Your task to perform on an android device: Open calendar and show me the third week of next month Image 0: 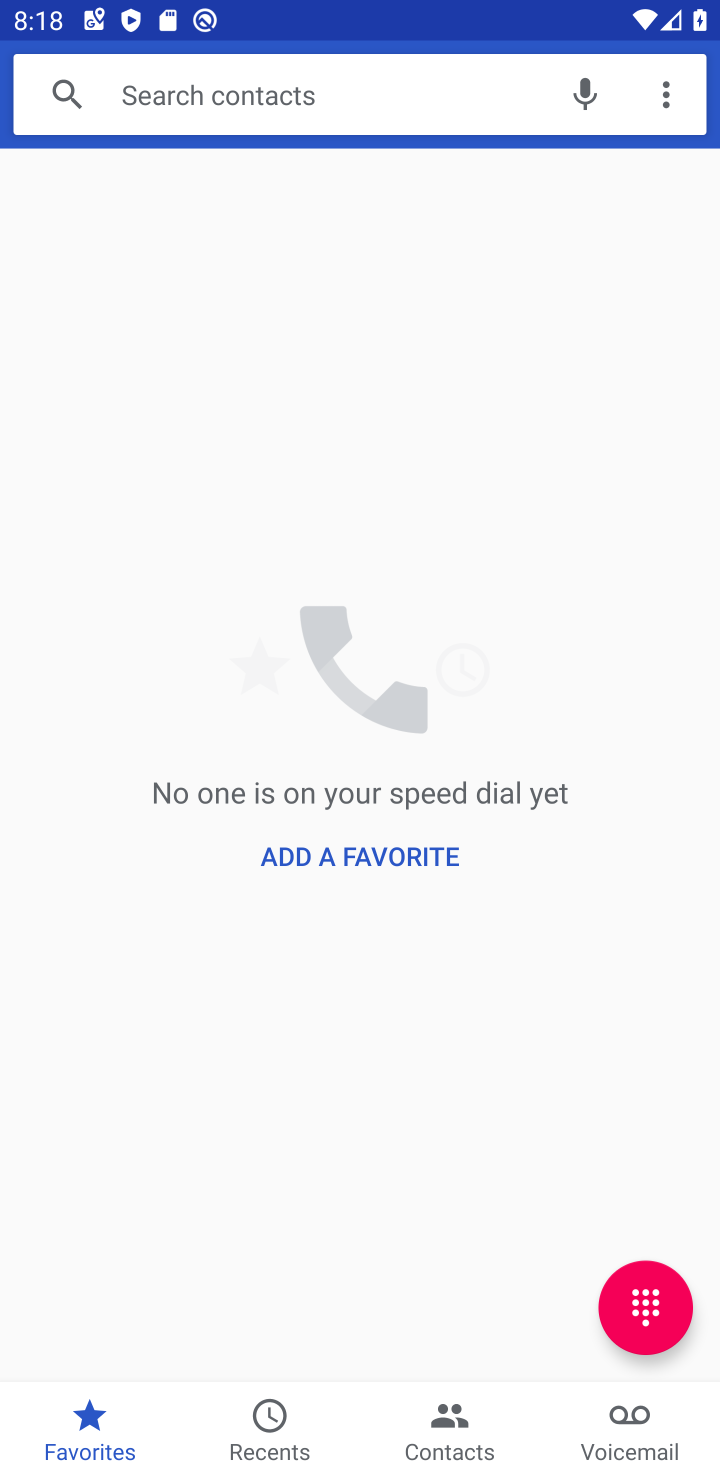
Step 0: press home button
Your task to perform on an android device: Open calendar and show me the third week of next month Image 1: 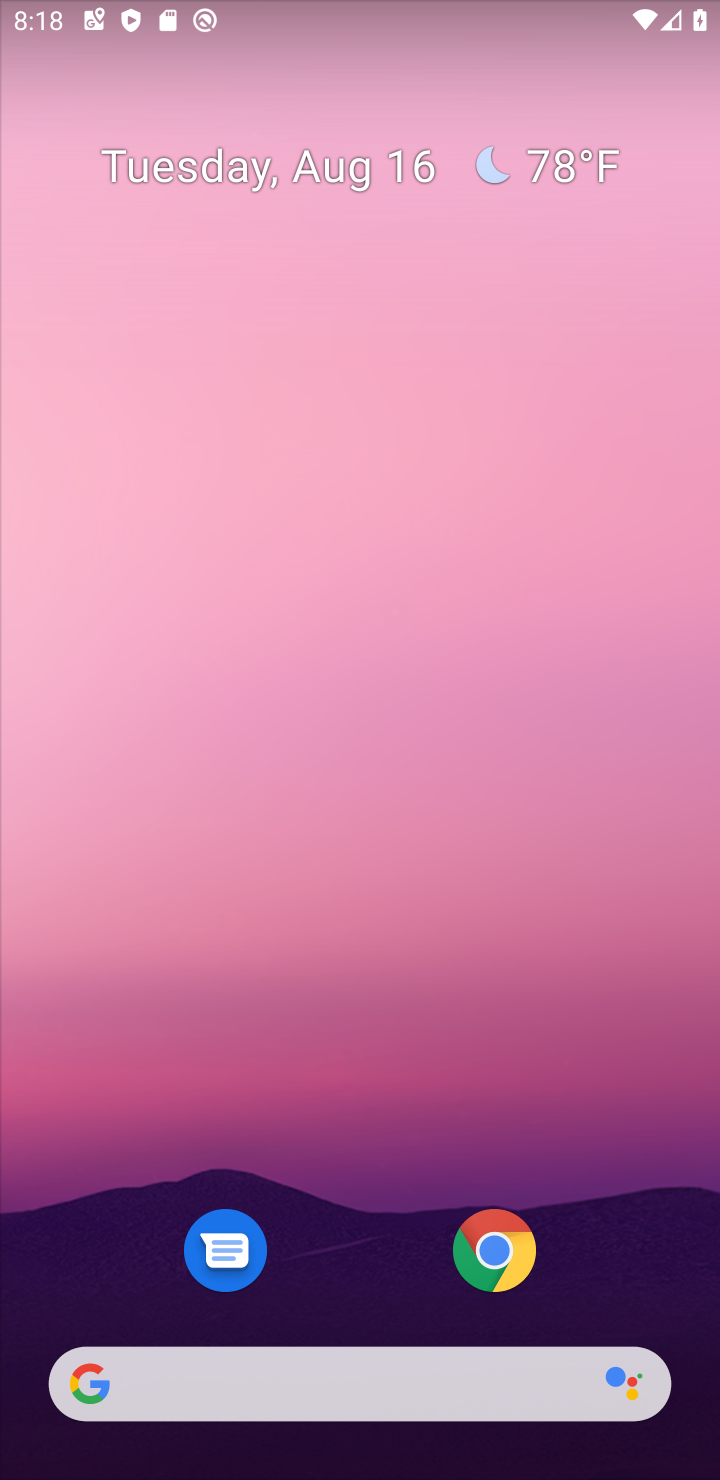
Step 1: click (275, 167)
Your task to perform on an android device: Open calendar and show me the third week of next month Image 2: 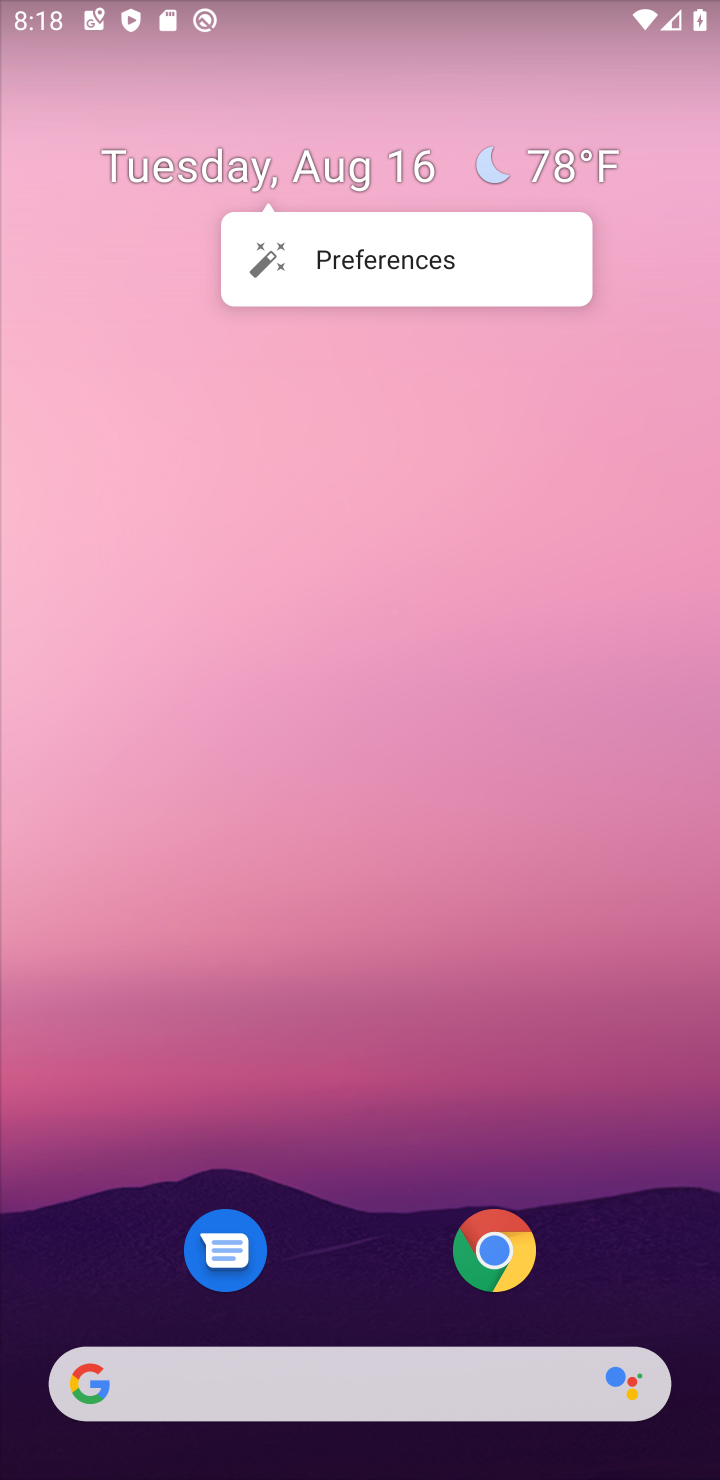
Step 2: click (211, 175)
Your task to perform on an android device: Open calendar and show me the third week of next month Image 3: 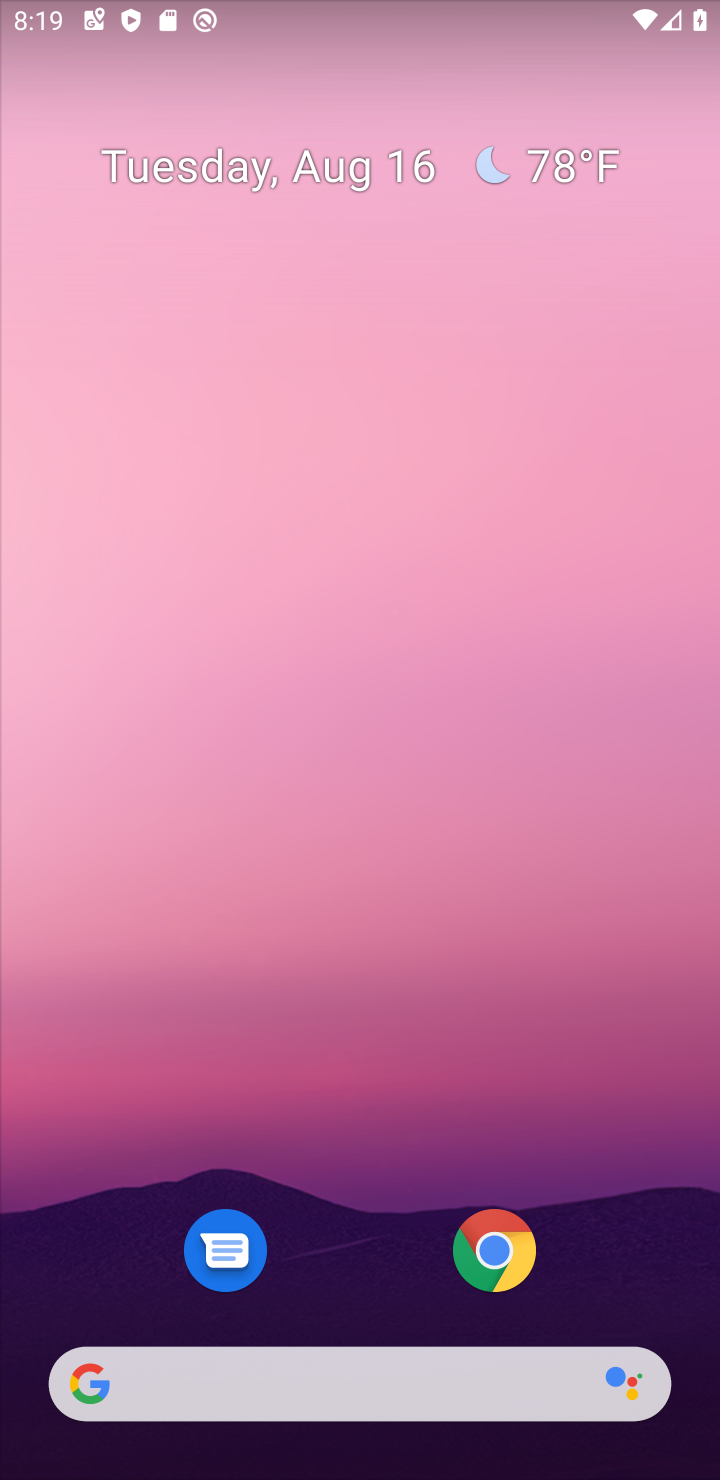
Step 3: click (196, 156)
Your task to perform on an android device: Open calendar and show me the third week of next month Image 4: 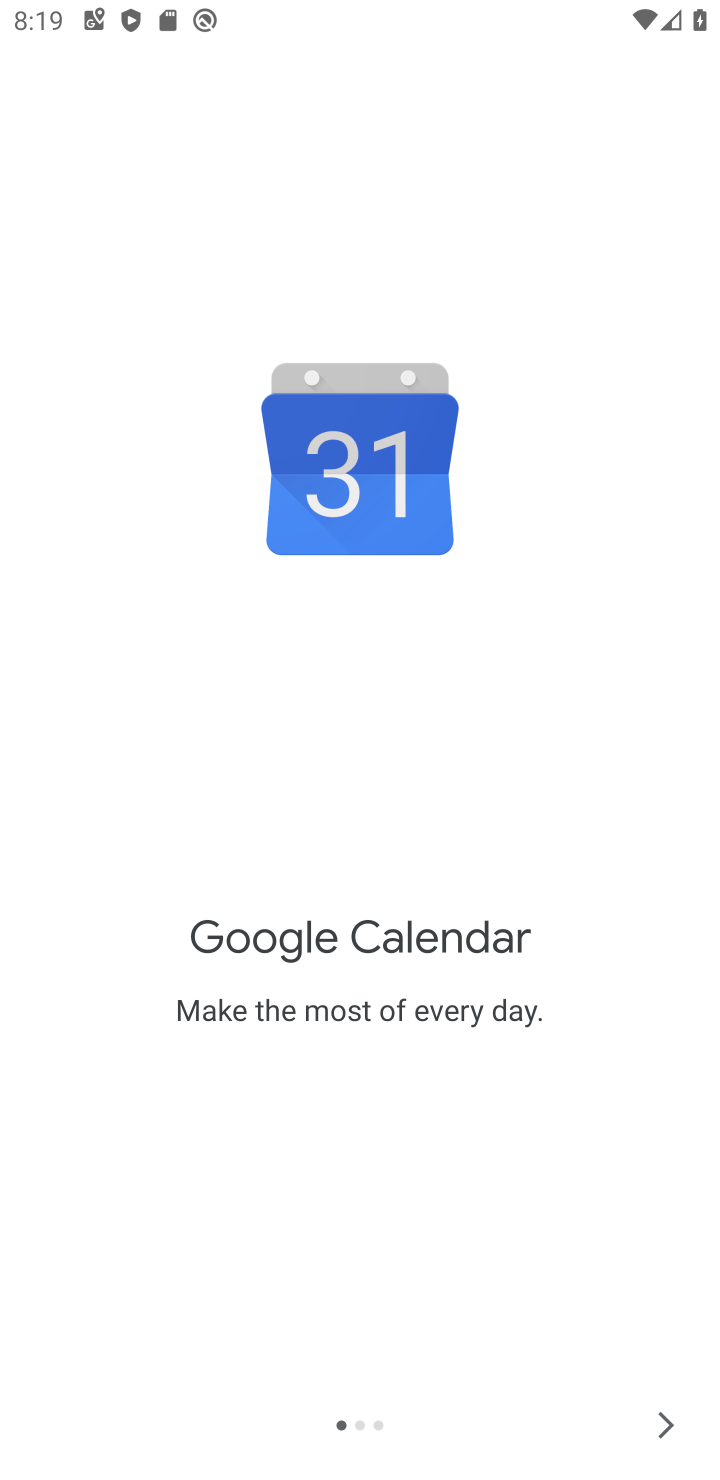
Step 4: click (659, 1415)
Your task to perform on an android device: Open calendar and show me the third week of next month Image 5: 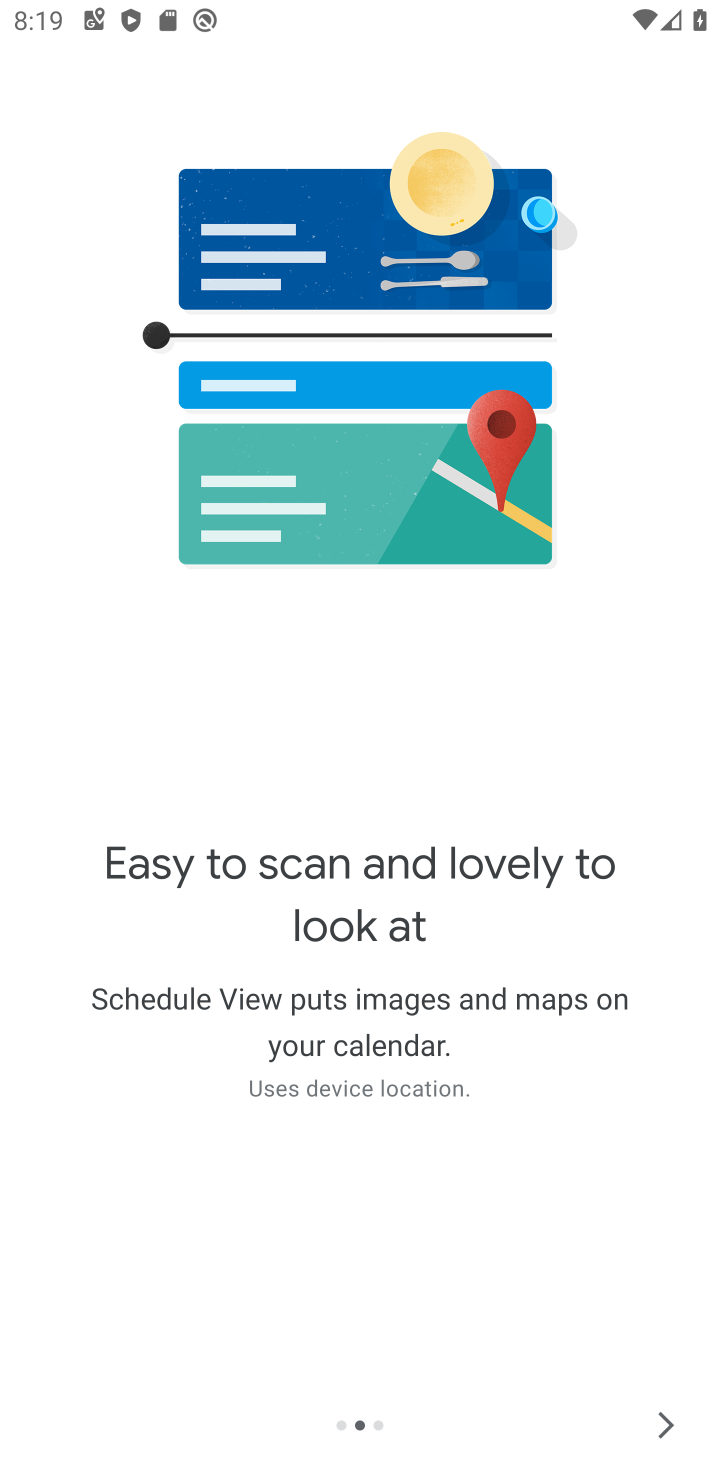
Step 5: click (662, 1421)
Your task to perform on an android device: Open calendar and show me the third week of next month Image 6: 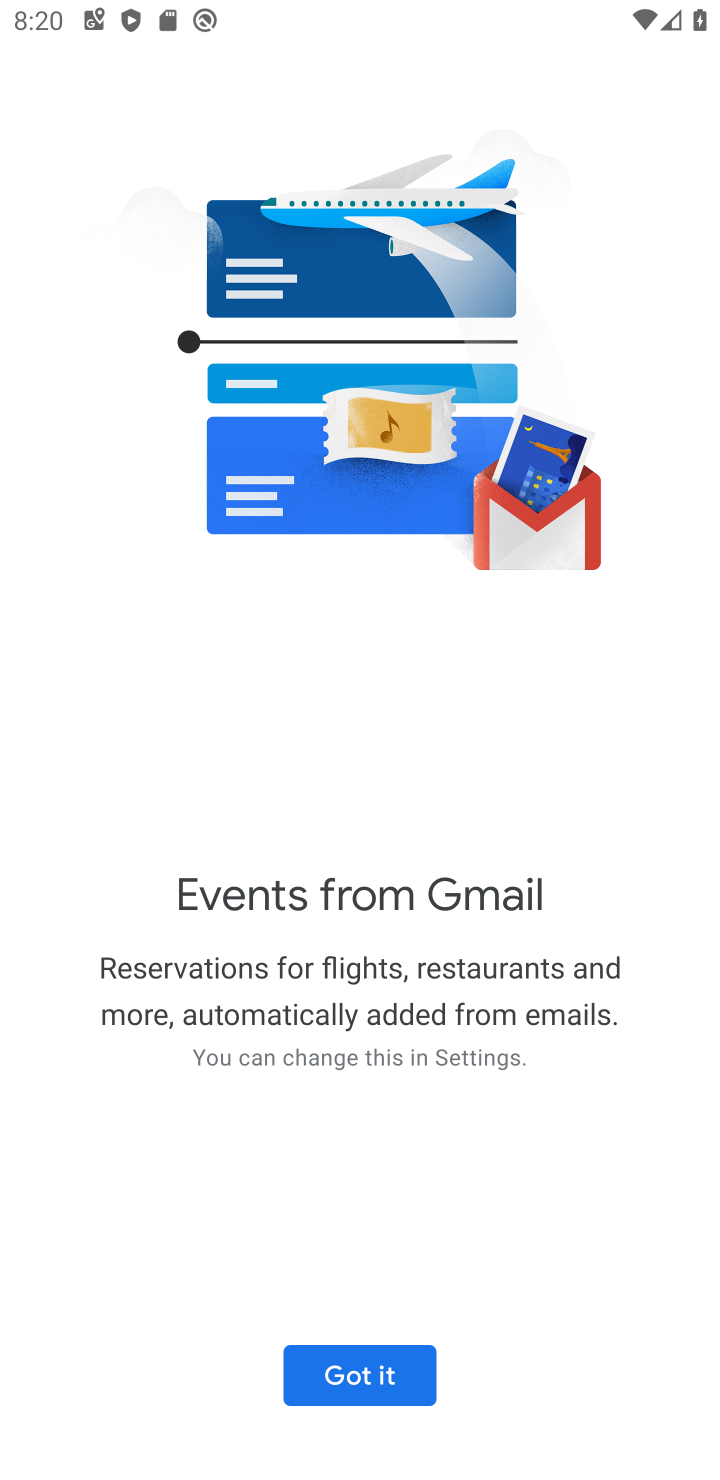
Step 6: click (399, 1355)
Your task to perform on an android device: Open calendar and show me the third week of next month Image 7: 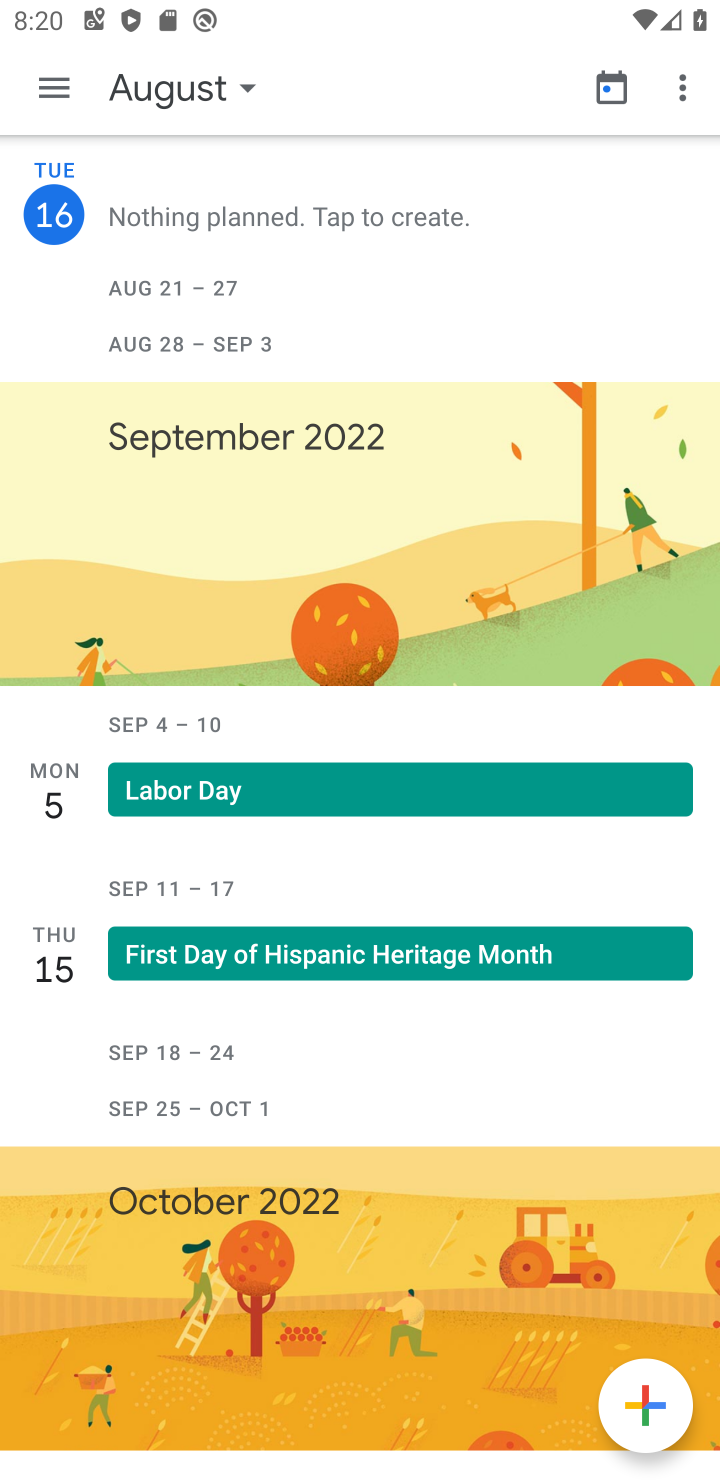
Step 7: click (225, 97)
Your task to perform on an android device: Open calendar and show me the third week of next month Image 8: 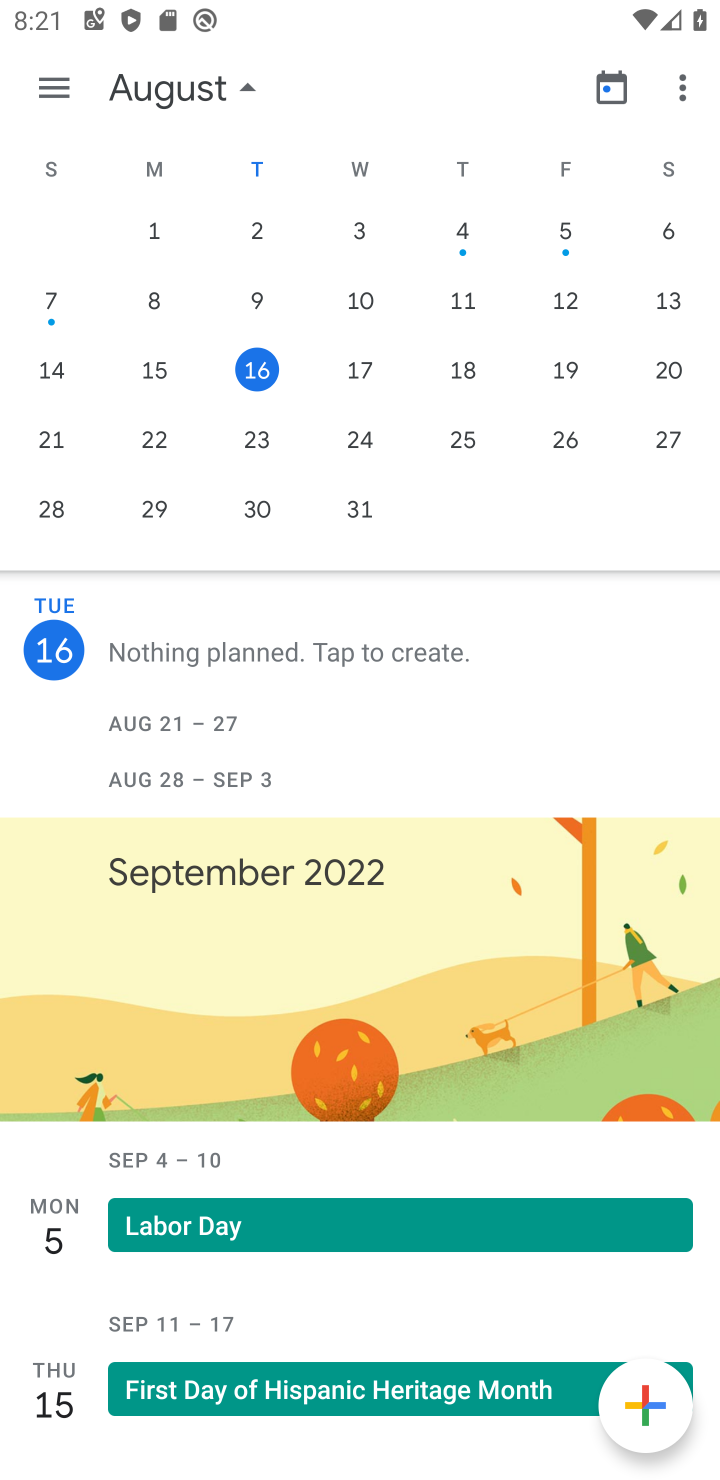
Step 8: drag from (658, 517) to (51, 400)
Your task to perform on an android device: Open calendar and show me the third week of next month Image 9: 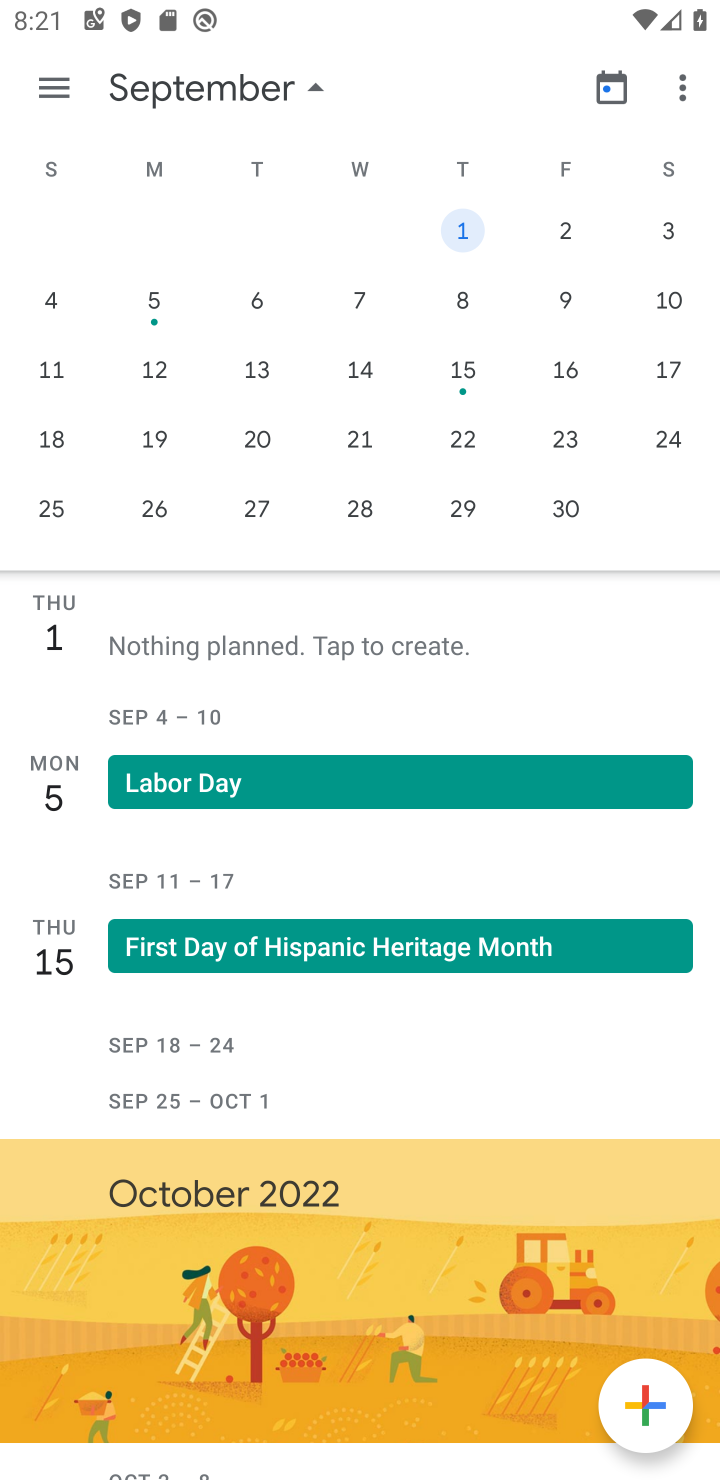
Step 9: click (462, 379)
Your task to perform on an android device: Open calendar and show me the third week of next month Image 10: 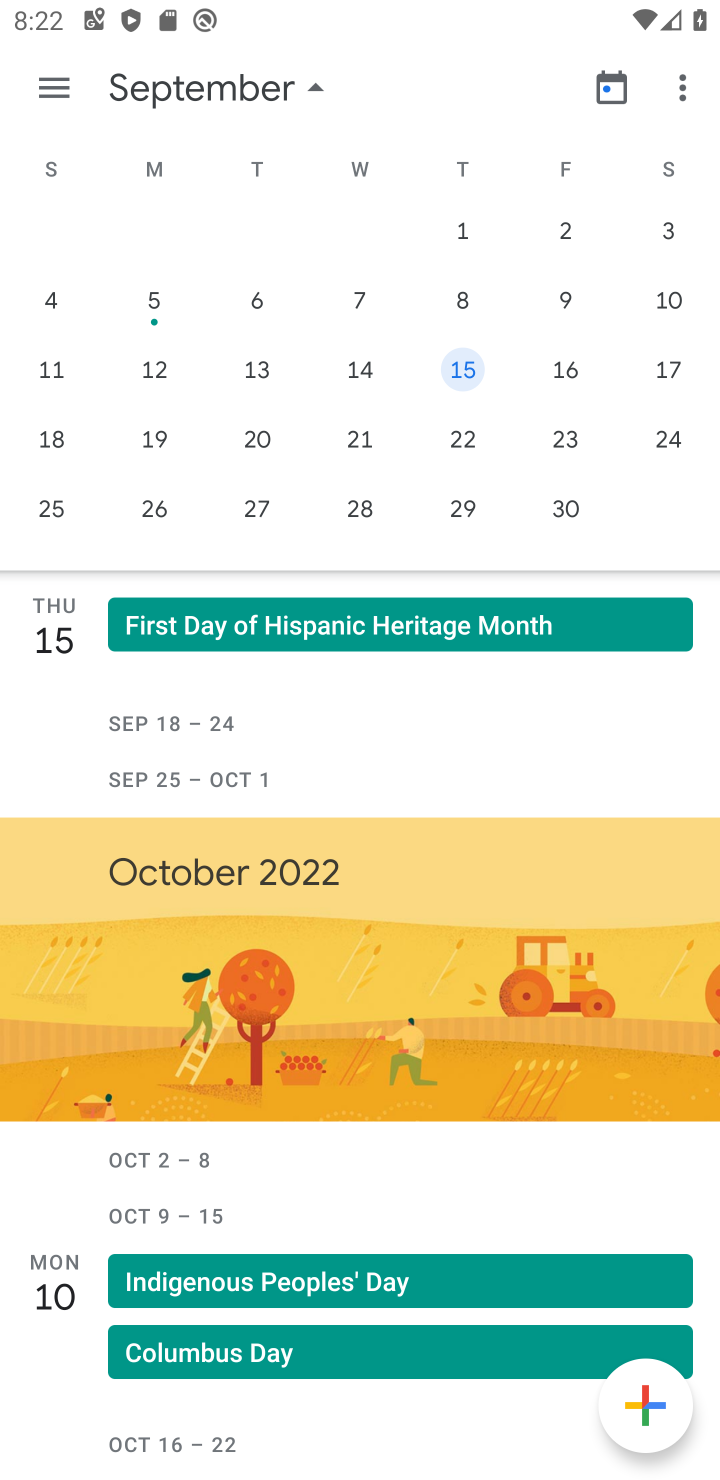
Step 10: click (462, 438)
Your task to perform on an android device: Open calendar and show me the third week of next month Image 11: 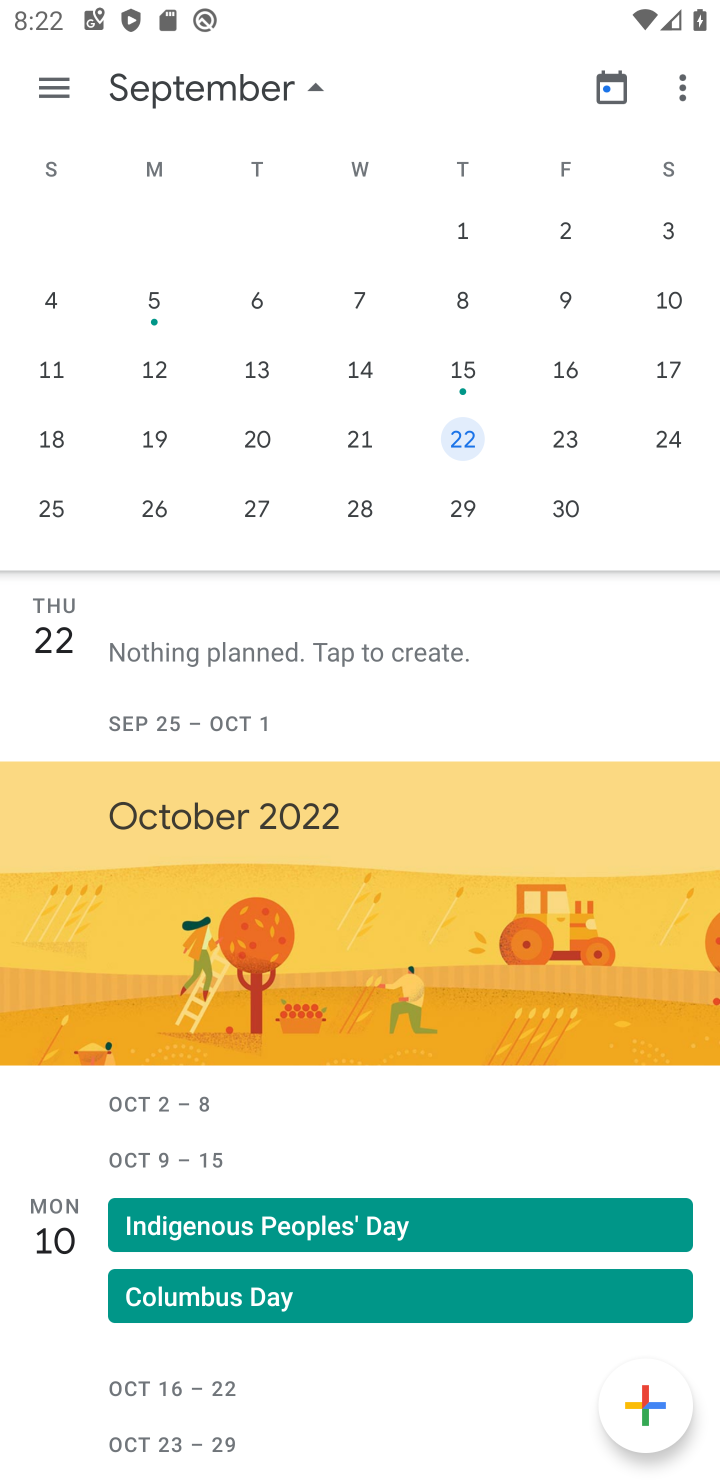
Step 11: click (463, 356)
Your task to perform on an android device: Open calendar and show me the third week of next month Image 12: 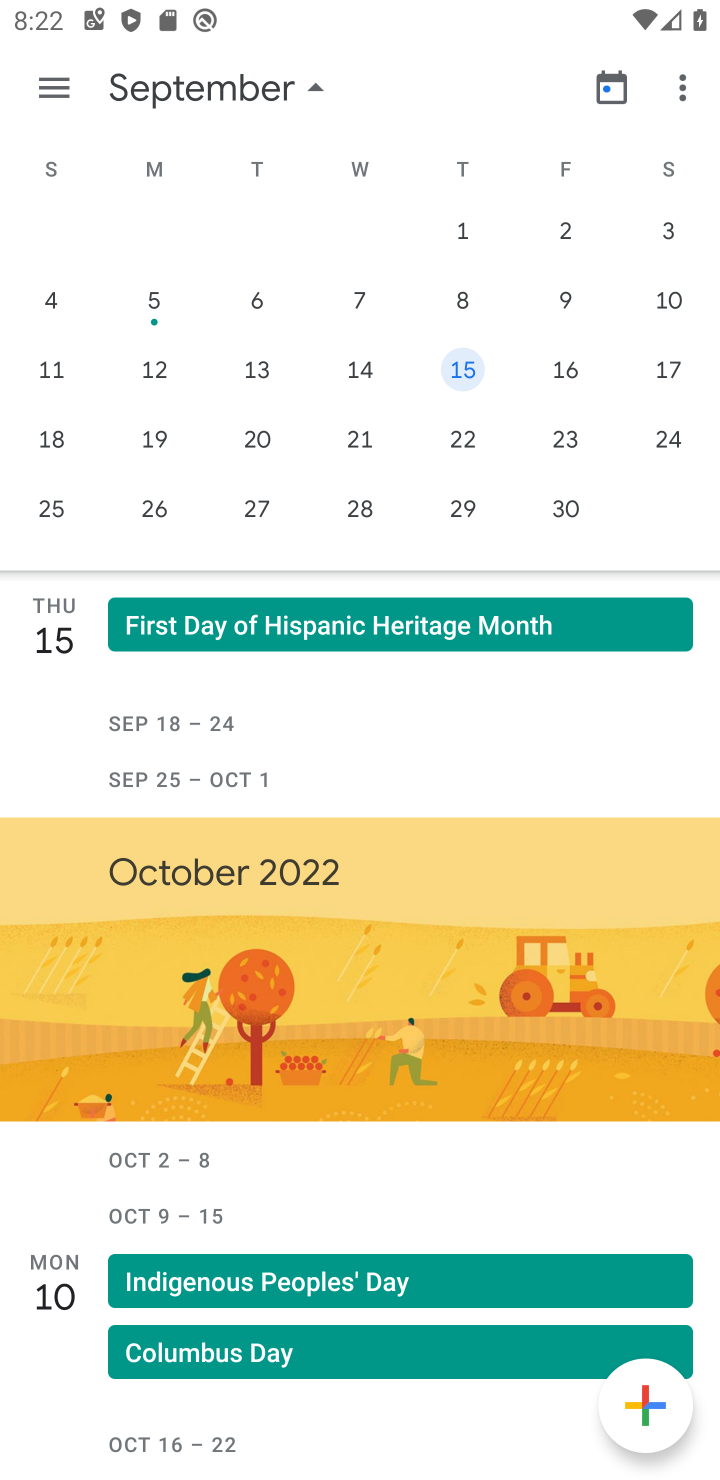
Step 12: click (463, 356)
Your task to perform on an android device: Open calendar and show me the third week of next month Image 13: 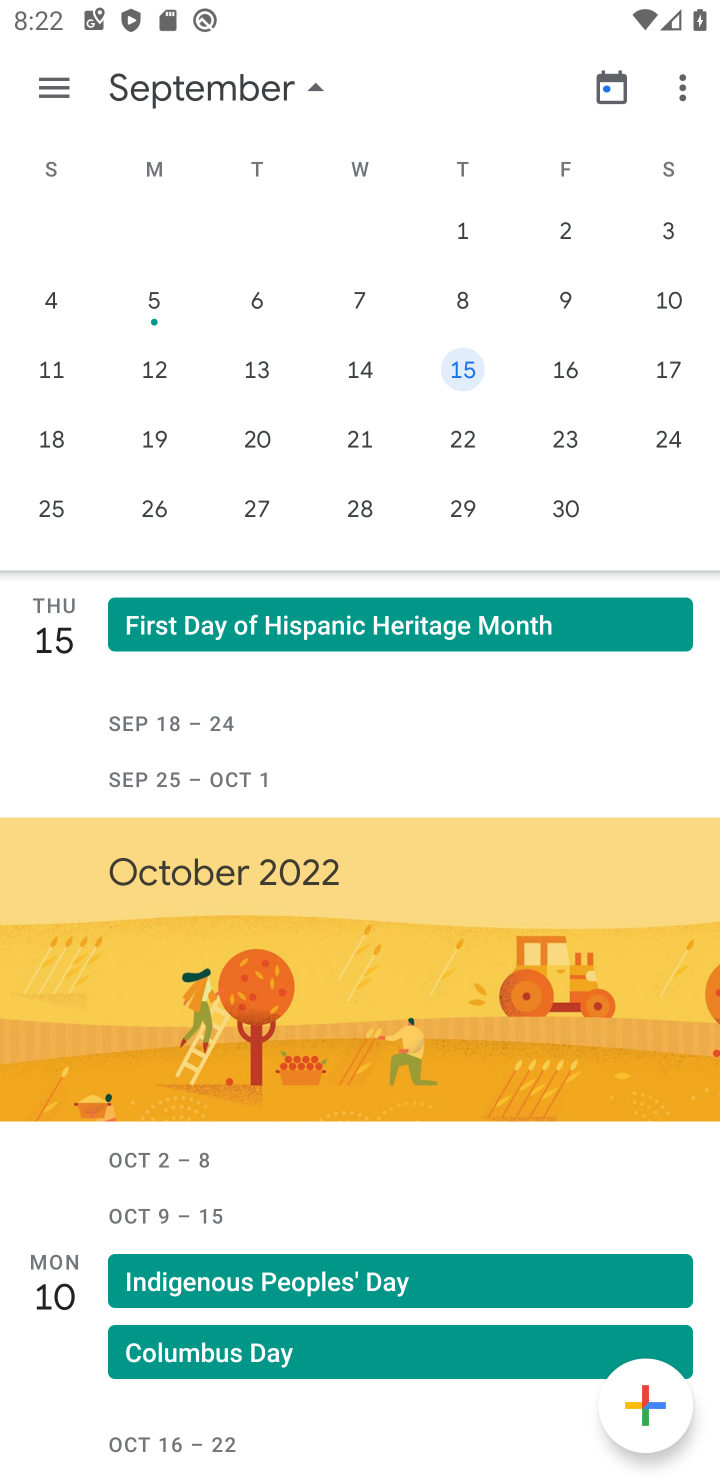
Step 13: task complete